Your task to perform on an android device: Open Maps and search for coffee Image 0: 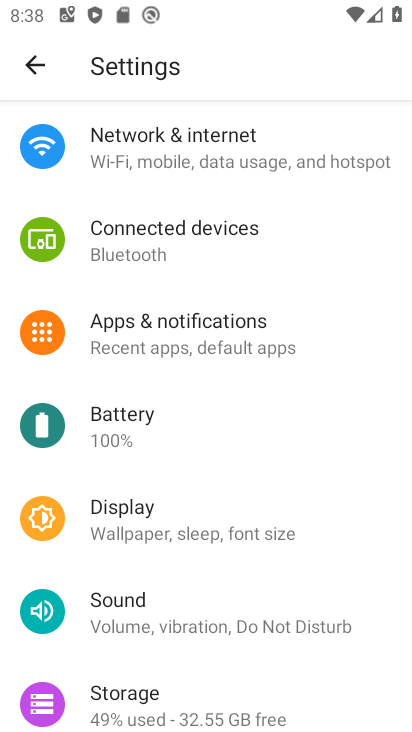
Step 0: press home button
Your task to perform on an android device: Open Maps and search for coffee Image 1: 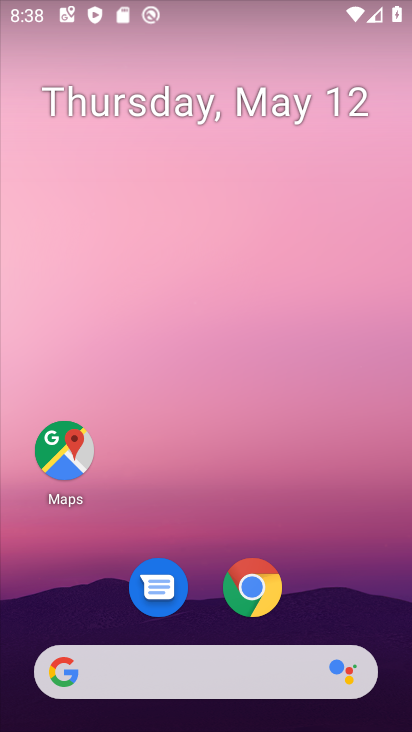
Step 1: drag from (302, 644) to (339, 140)
Your task to perform on an android device: Open Maps and search for coffee Image 2: 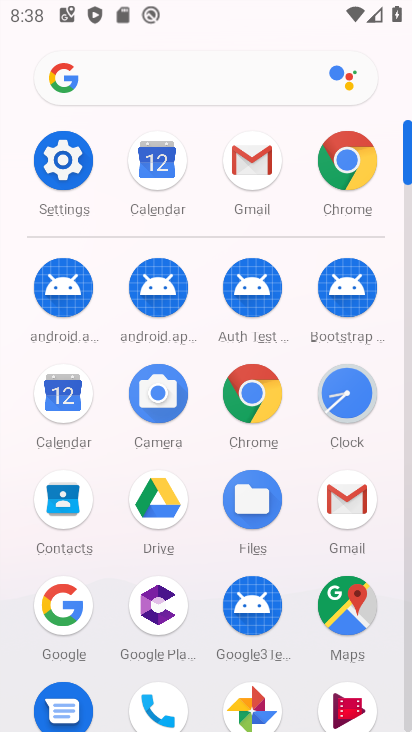
Step 2: click (346, 607)
Your task to perform on an android device: Open Maps and search for coffee Image 3: 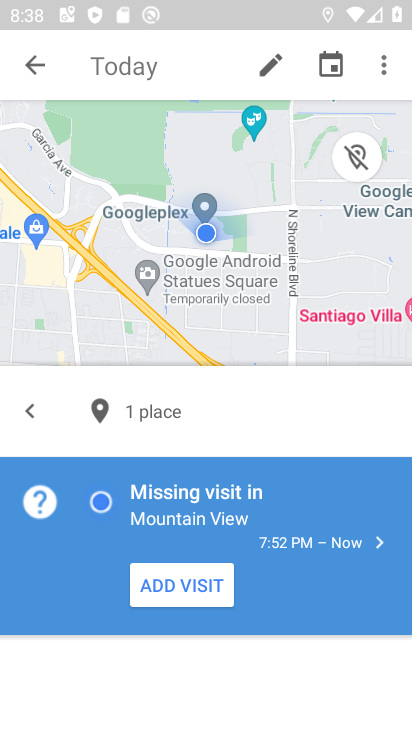
Step 3: click (40, 61)
Your task to perform on an android device: Open Maps and search for coffee Image 4: 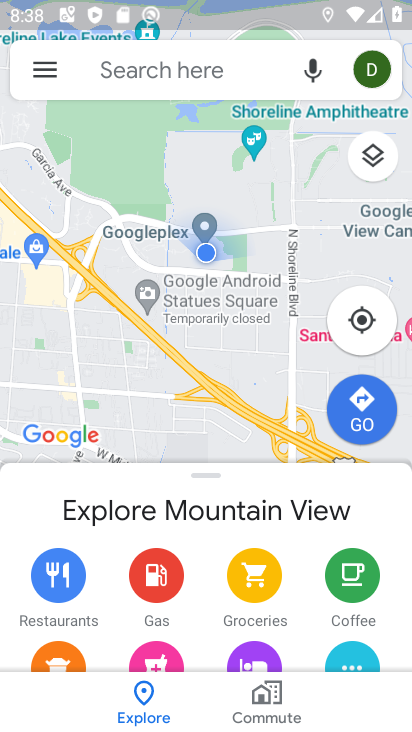
Step 4: task complete